Your task to perform on an android device: set default search engine in the chrome app Image 0: 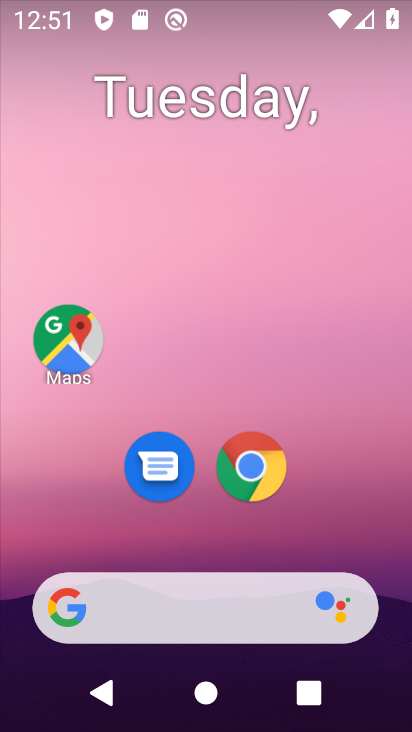
Step 0: click (274, 482)
Your task to perform on an android device: set default search engine in the chrome app Image 1: 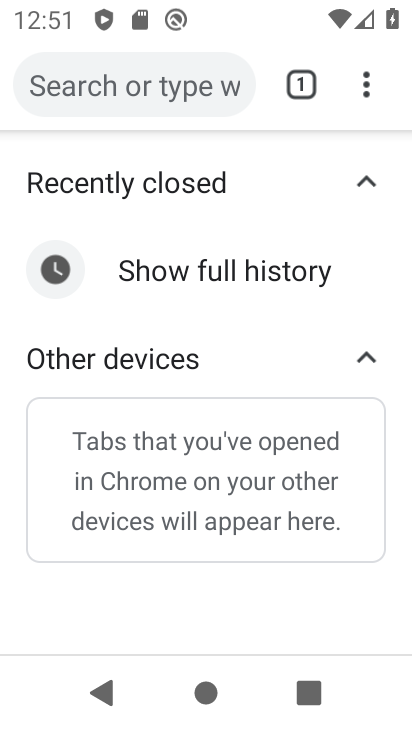
Step 1: click (366, 92)
Your task to perform on an android device: set default search engine in the chrome app Image 2: 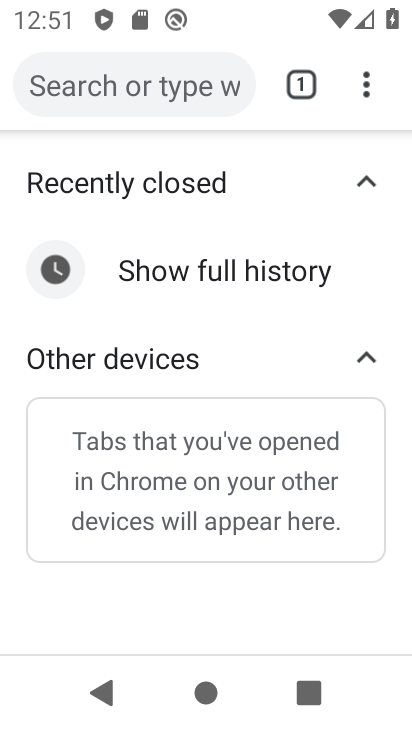
Step 2: click (378, 77)
Your task to perform on an android device: set default search engine in the chrome app Image 3: 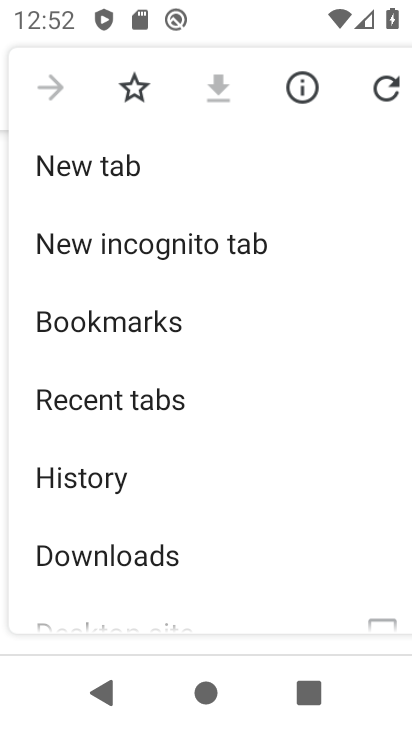
Step 3: drag from (172, 523) to (175, 337)
Your task to perform on an android device: set default search engine in the chrome app Image 4: 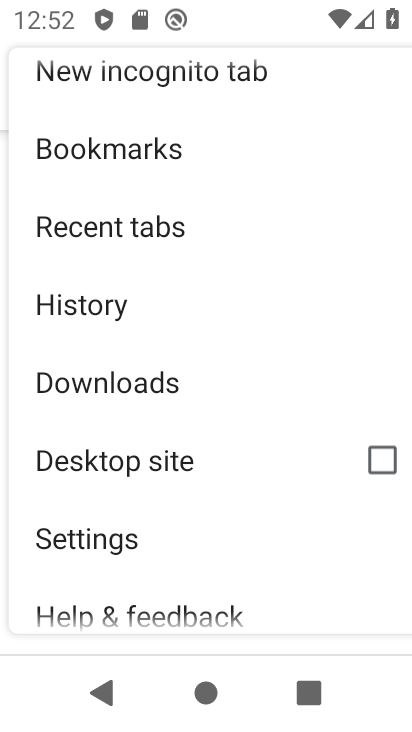
Step 4: click (85, 553)
Your task to perform on an android device: set default search engine in the chrome app Image 5: 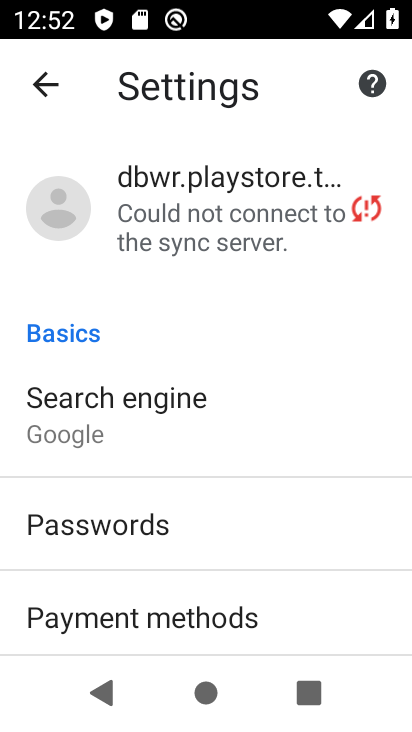
Step 5: drag from (102, 578) to (92, 302)
Your task to perform on an android device: set default search engine in the chrome app Image 6: 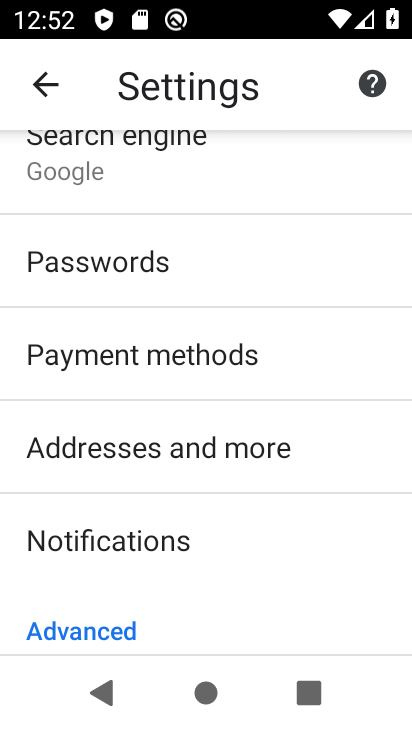
Step 6: drag from (154, 562) to (154, 459)
Your task to perform on an android device: set default search engine in the chrome app Image 7: 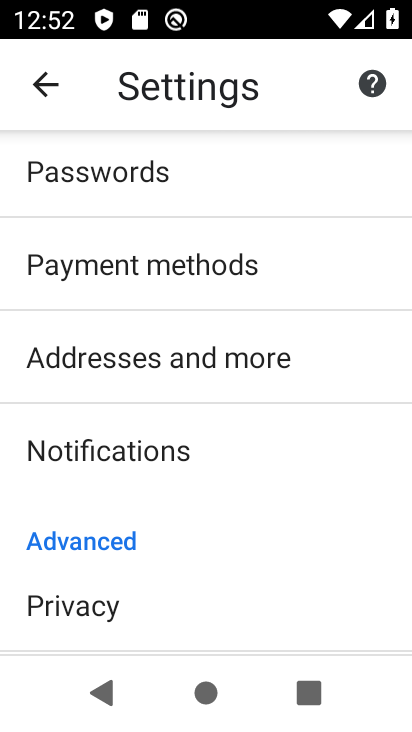
Step 7: drag from (185, 599) to (181, 483)
Your task to perform on an android device: set default search engine in the chrome app Image 8: 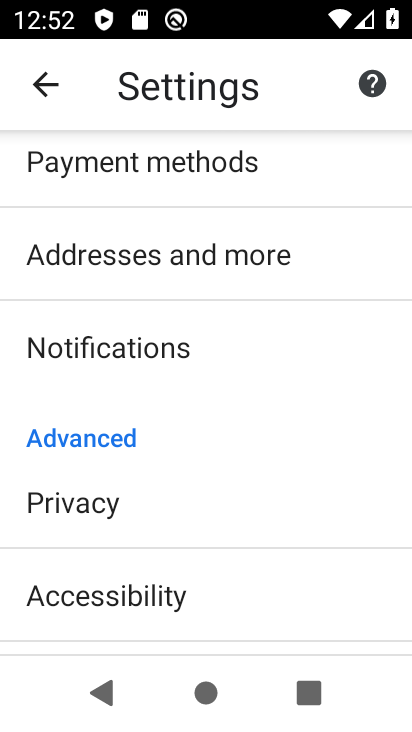
Step 8: drag from (186, 546) to (212, 576)
Your task to perform on an android device: set default search engine in the chrome app Image 9: 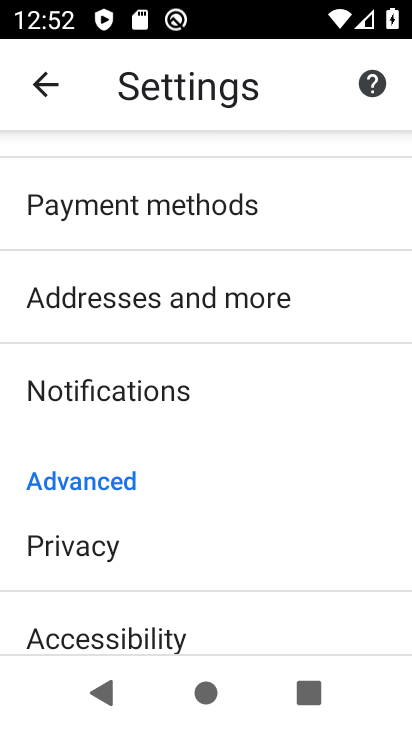
Step 9: drag from (252, 371) to (241, 710)
Your task to perform on an android device: set default search engine in the chrome app Image 10: 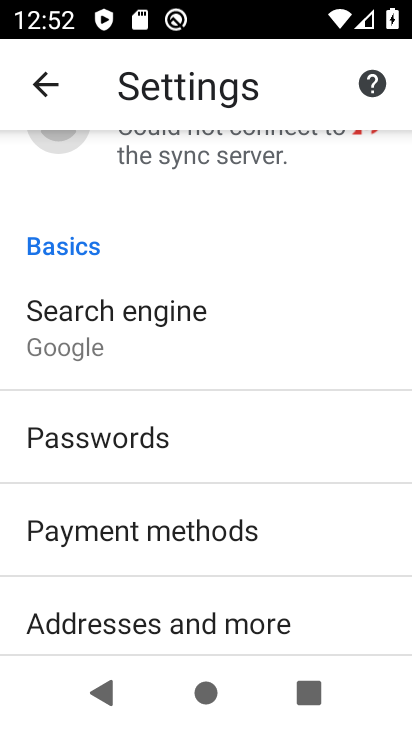
Step 10: click (215, 368)
Your task to perform on an android device: set default search engine in the chrome app Image 11: 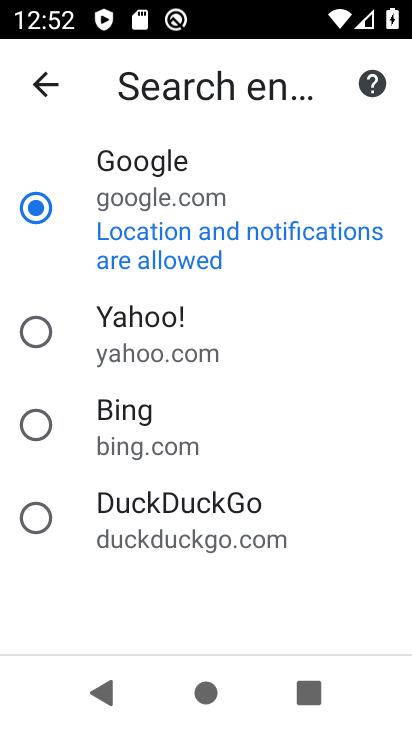
Step 11: click (215, 368)
Your task to perform on an android device: set default search engine in the chrome app Image 12: 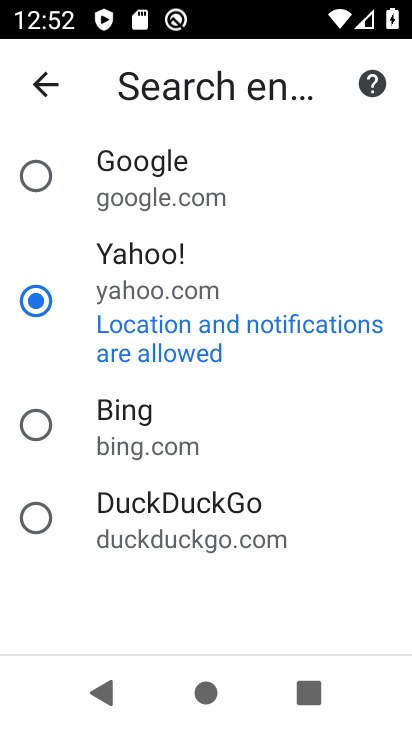
Step 12: task complete